Your task to perform on an android device: toggle wifi Image 0: 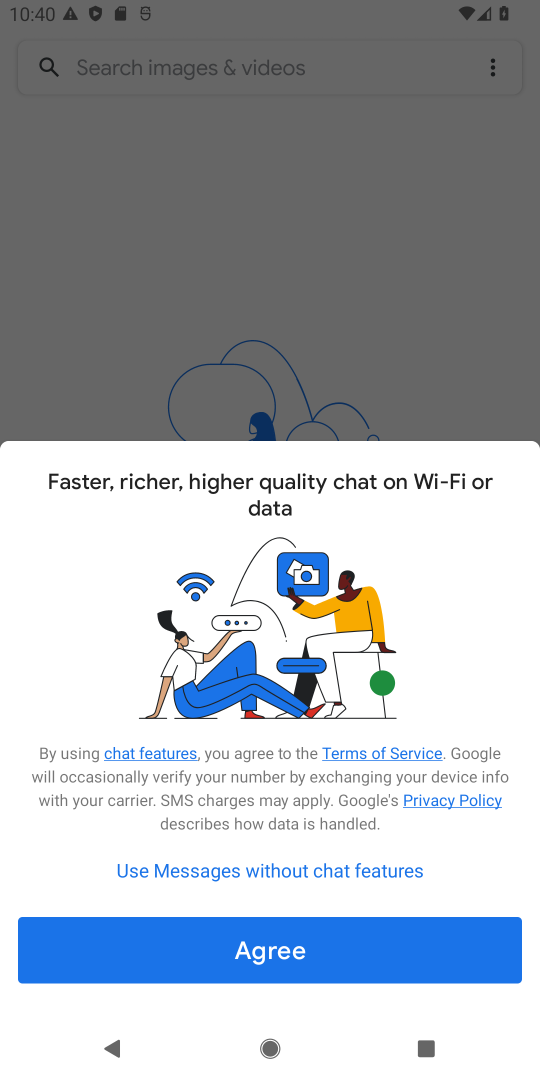
Step 0: press back button
Your task to perform on an android device: toggle wifi Image 1: 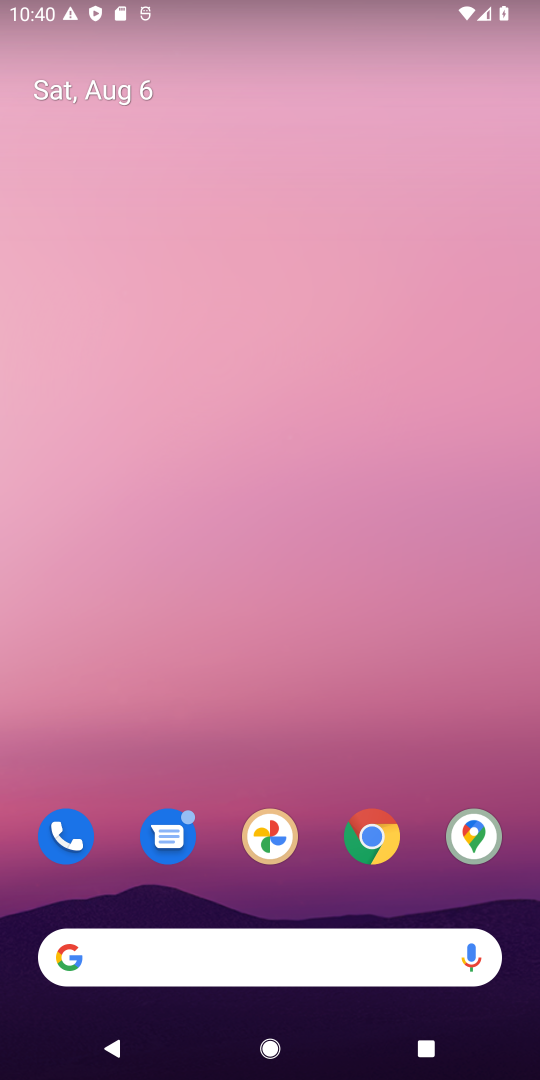
Step 1: drag from (224, 772) to (196, 183)
Your task to perform on an android device: toggle wifi Image 2: 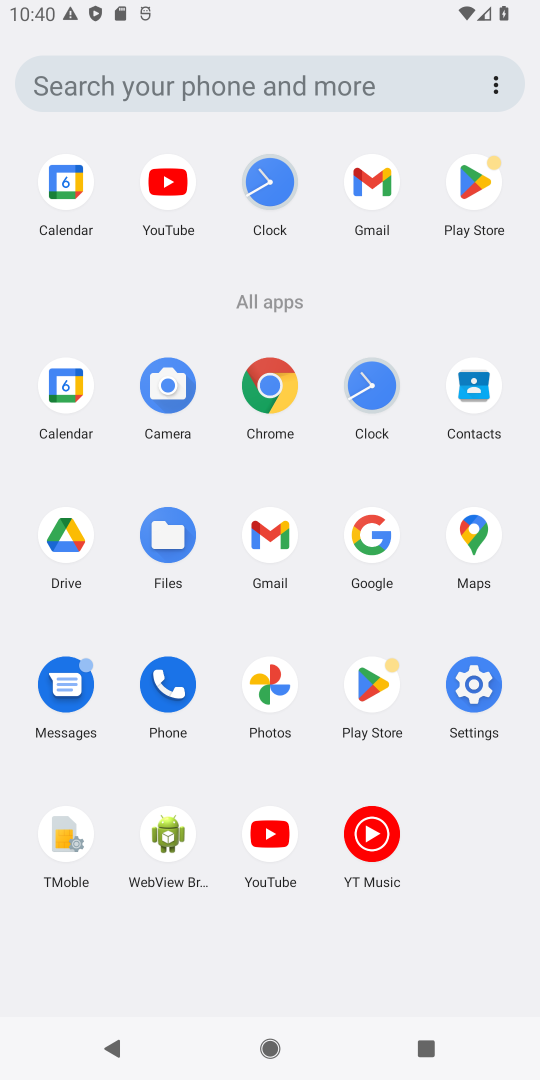
Step 2: click (467, 677)
Your task to perform on an android device: toggle wifi Image 3: 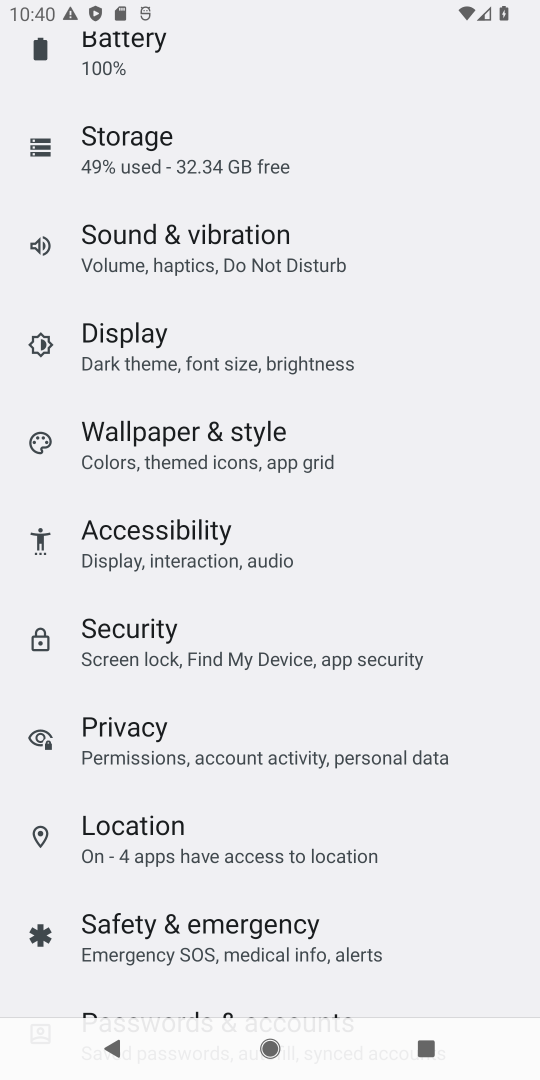
Step 3: drag from (265, 204) to (101, 1000)
Your task to perform on an android device: toggle wifi Image 4: 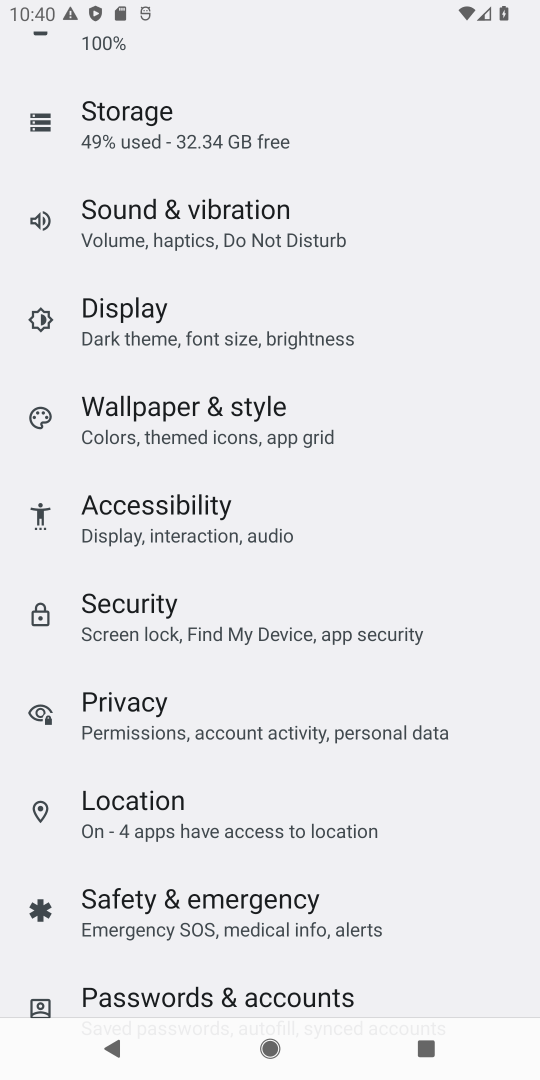
Step 4: drag from (184, 139) to (131, 741)
Your task to perform on an android device: toggle wifi Image 5: 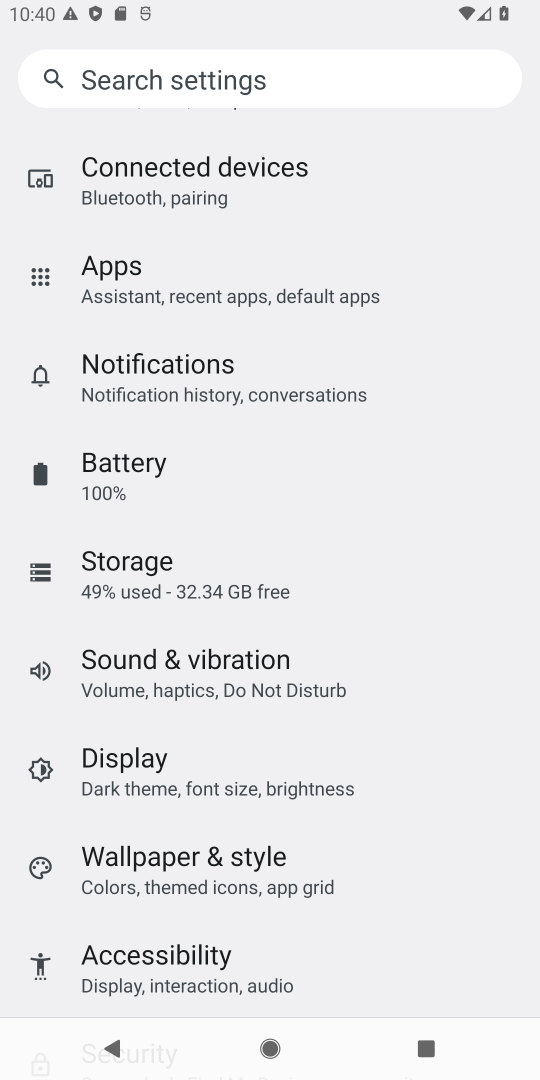
Step 5: drag from (162, 327) to (115, 976)
Your task to perform on an android device: toggle wifi Image 6: 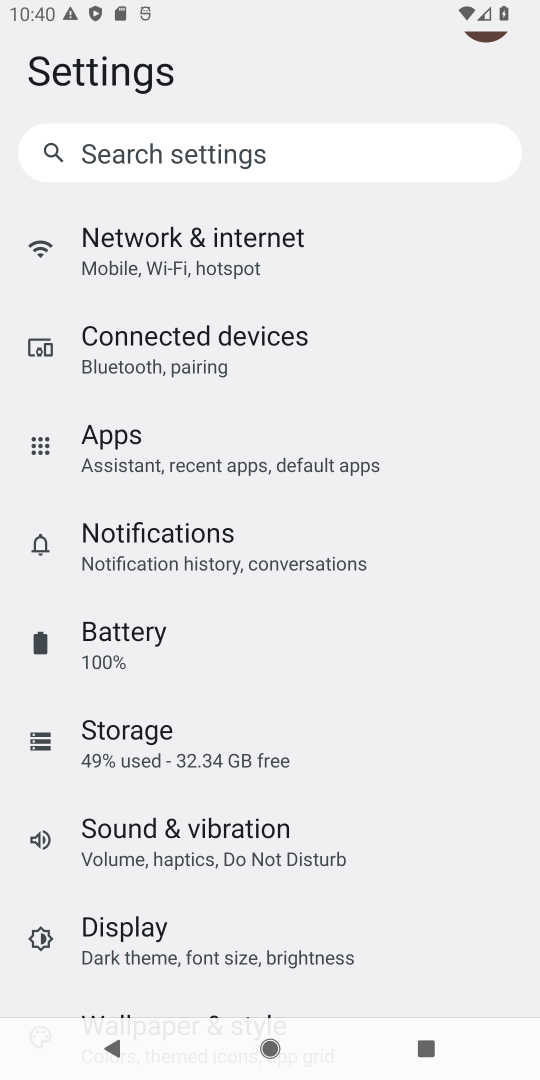
Step 6: click (170, 246)
Your task to perform on an android device: toggle wifi Image 7: 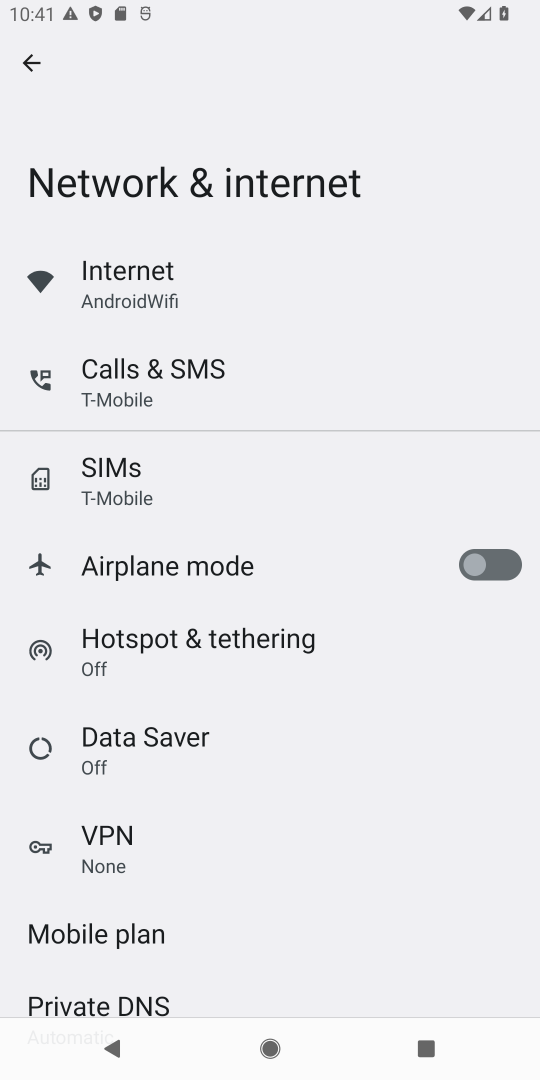
Step 7: click (144, 276)
Your task to perform on an android device: toggle wifi Image 8: 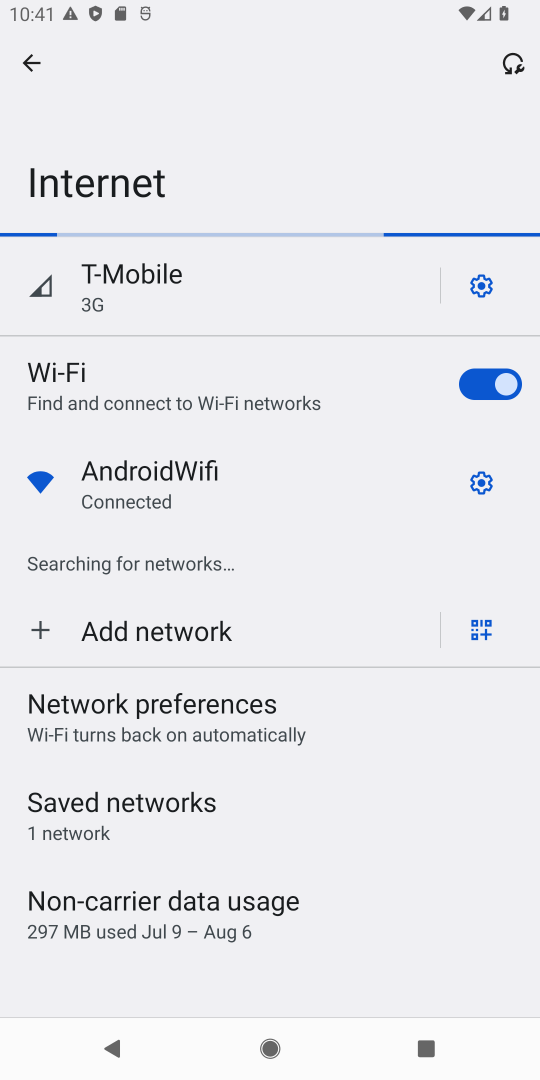
Step 8: click (466, 384)
Your task to perform on an android device: toggle wifi Image 9: 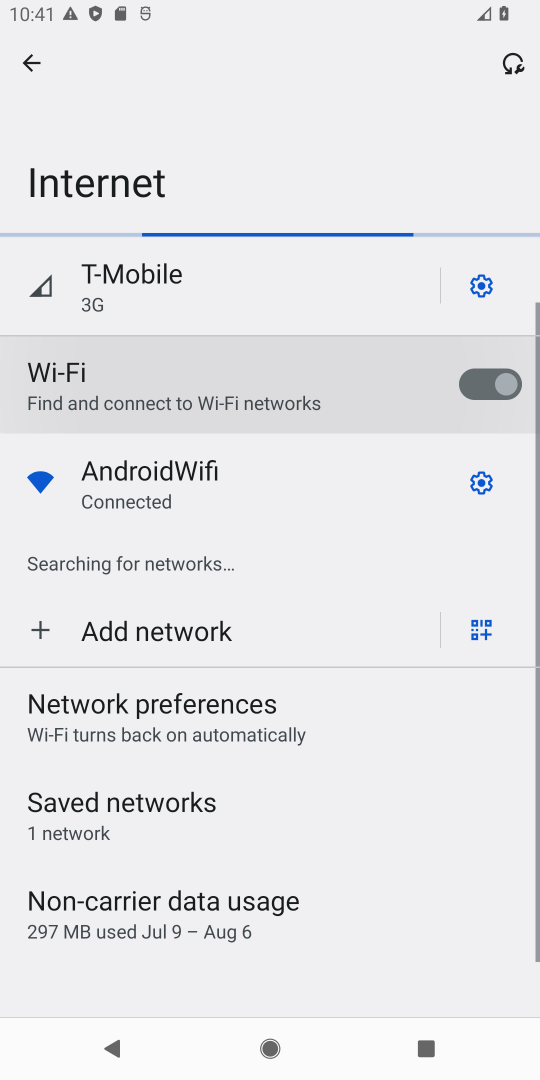
Step 9: task complete